Your task to perform on an android device: Add "razer blade" to the cart on target, then select checkout. Image 0: 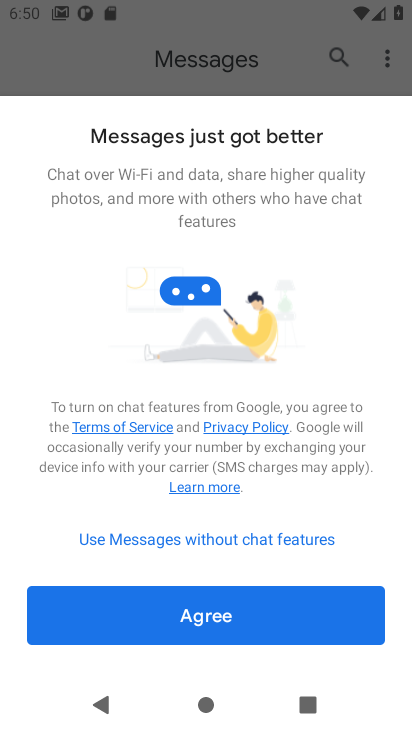
Step 0: press home button
Your task to perform on an android device: Add "razer blade" to the cart on target, then select checkout. Image 1: 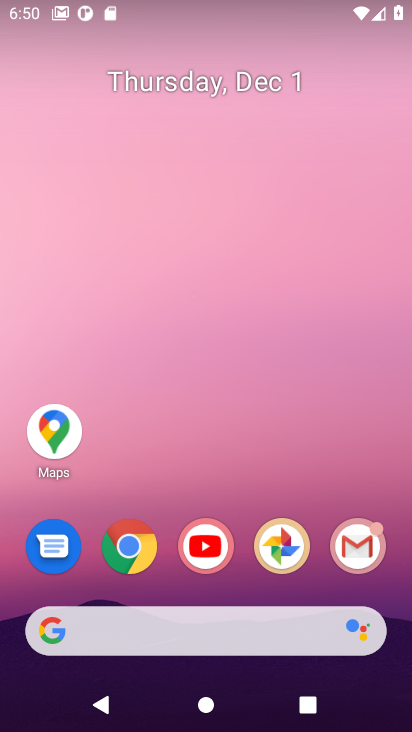
Step 1: click (130, 553)
Your task to perform on an android device: Add "razer blade" to the cart on target, then select checkout. Image 2: 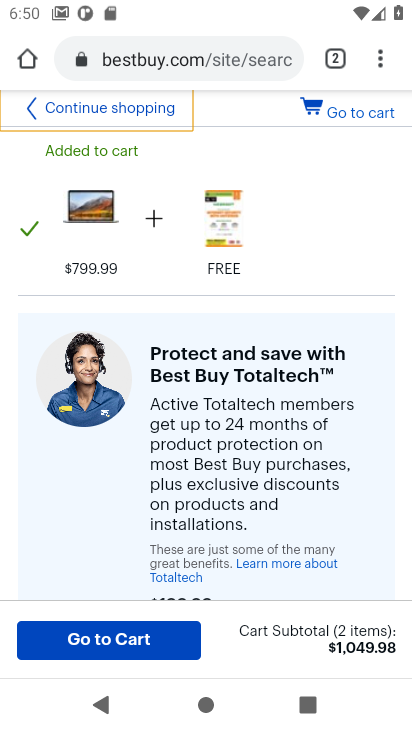
Step 2: click (172, 61)
Your task to perform on an android device: Add "razer blade" to the cart on target, then select checkout. Image 3: 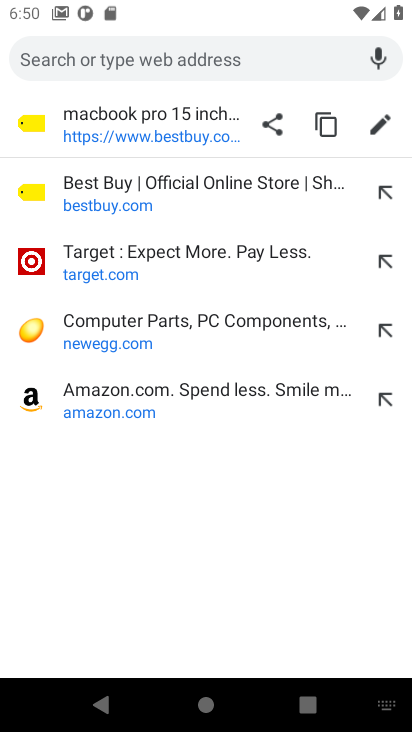
Step 3: click (68, 261)
Your task to perform on an android device: Add "razer blade" to the cart on target, then select checkout. Image 4: 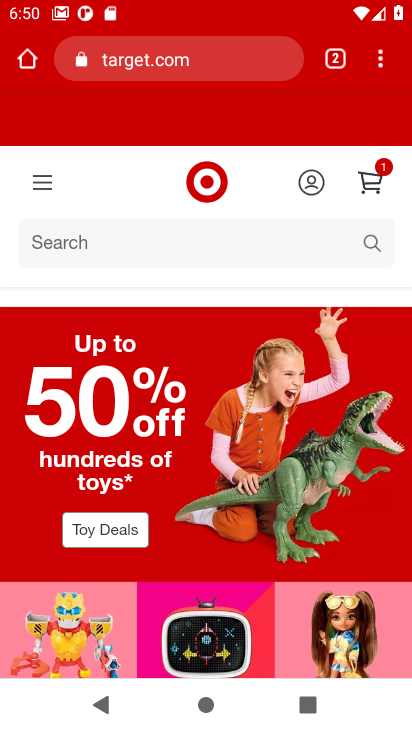
Step 4: click (64, 241)
Your task to perform on an android device: Add "razer blade" to the cart on target, then select checkout. Image 5: 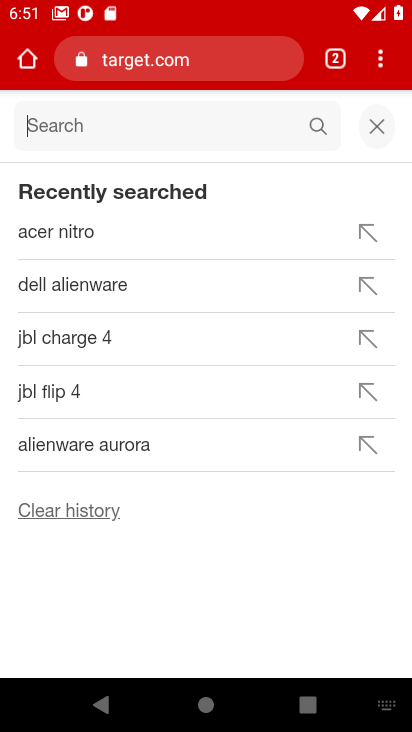
Step 5: type "razer blade "
Your task to perform on an android device: Add "razer blade" to the cart on target, then select checkout. Image 6: 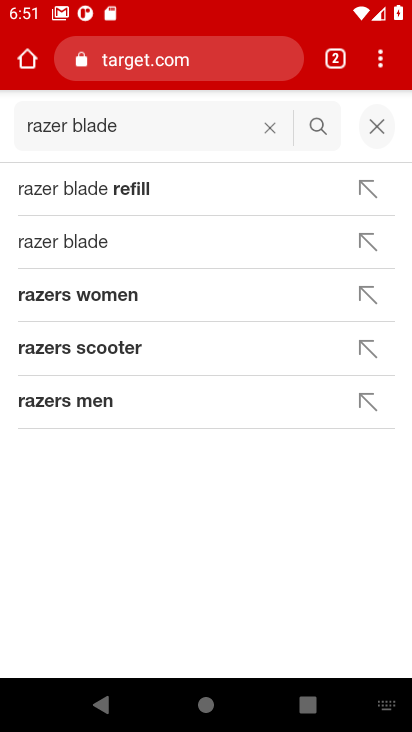
Step 6: click (47, 245)
Your task to perform on an android device: Add "razer blade" to the cart on target, then select checkout. Image 7: 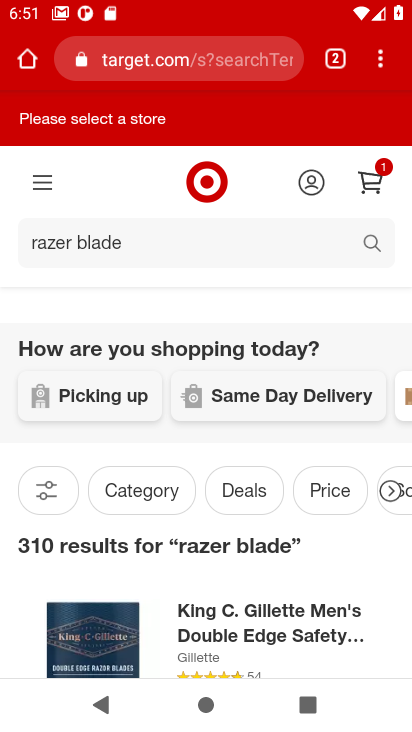
Step 7: task complete